Your task to perform on an android device: Go to ESPN.com Image 0: 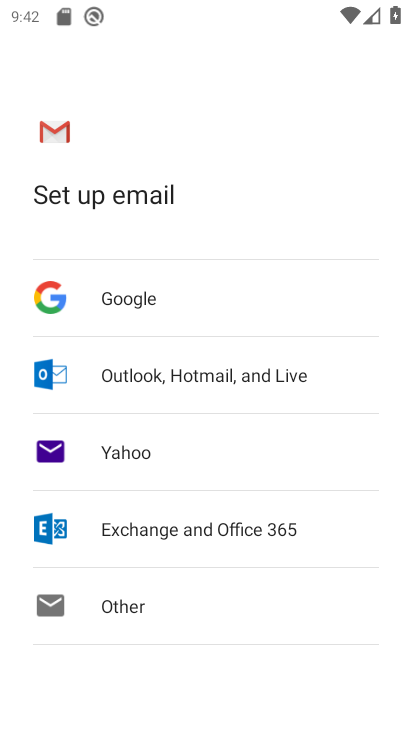
Step 0: drag from (227, 664) to (218, 109)
Your task to perform on an android device: Go to ESPN.com Image 1: 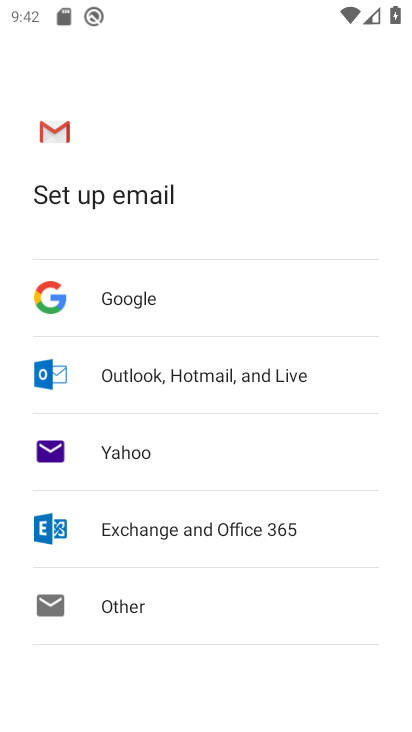
Step 1: press home button
Your task to perform on an android device: Go to ESPN.com Image 2: 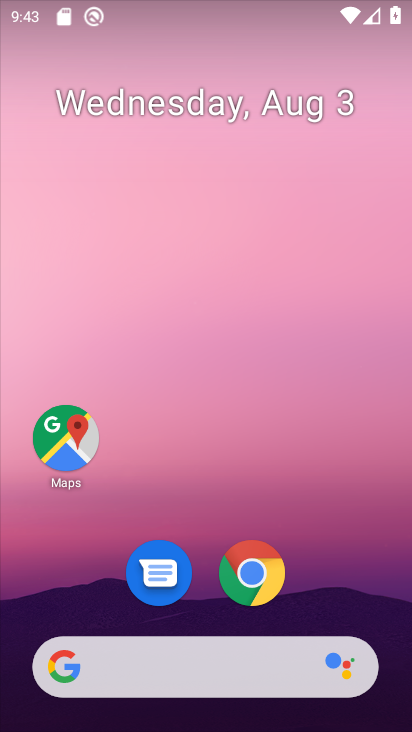
Step 2: click (265, 568)
Your task to perform on an android device: Go to ESPN.com Image 3: 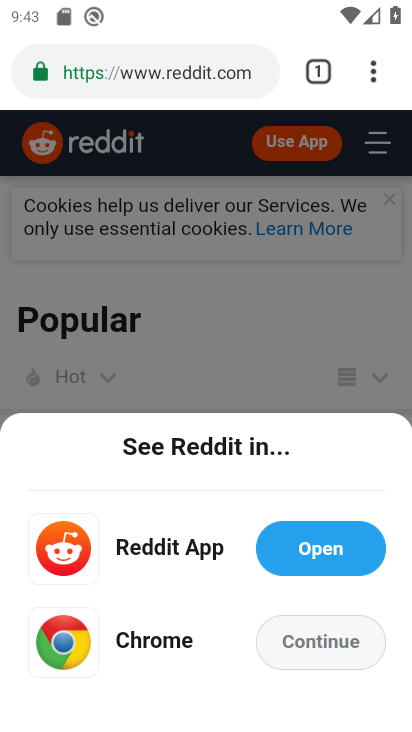
Step 3: click (197, 73)
Your task to perform on an android device: Go to ESPN.com Image 4: 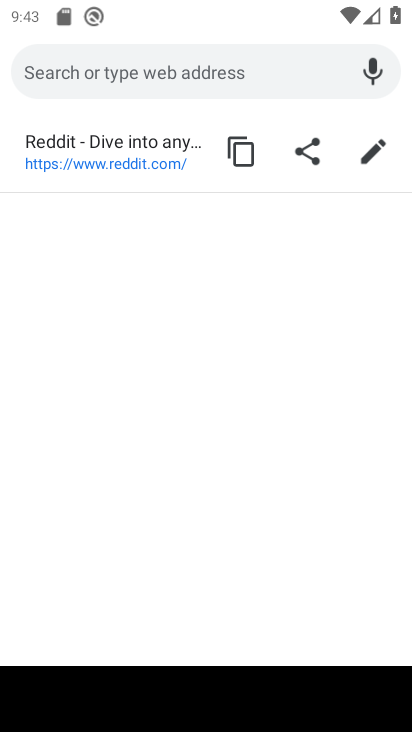
Step 4: type "espn.com"
Your task to perform on an android device: Go to ESPN.com Image 5: 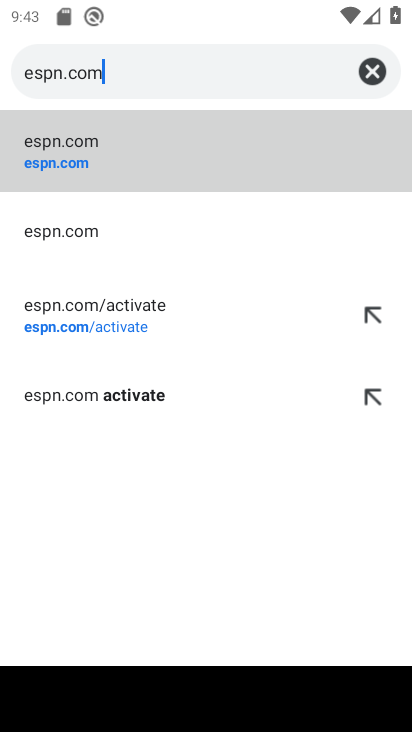
Step 5: click (259, 157)
Your task to perform on an android device: Go to ESPN.com Image 6: 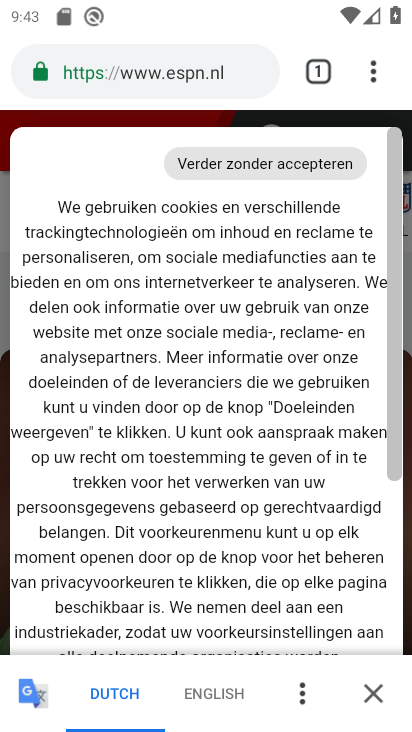
Step 6: task complete